Your task to perform on an android device: turn off improve location accuracy Image 0: 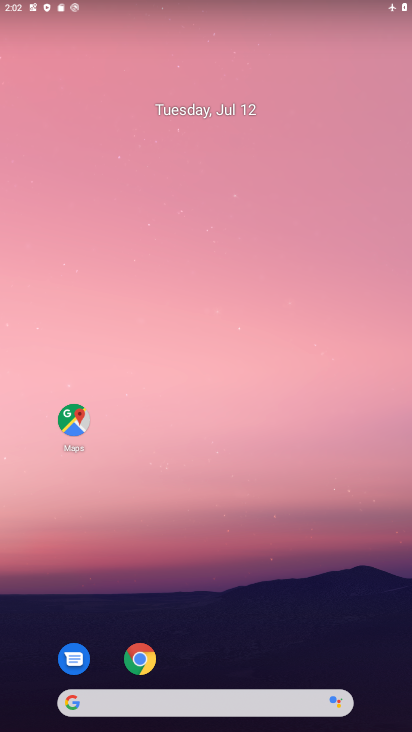
Step 0: drag from (174, 716) to (169, 294)
Your task to perform on an android device: turn off improve location accuracy Image 1: 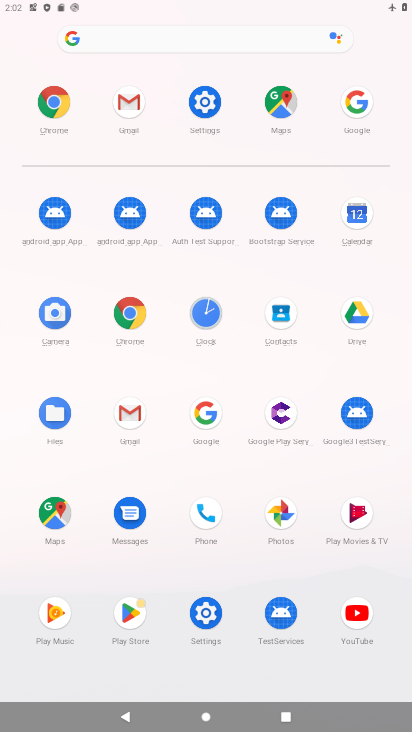
Step 1: click (200, 101)
Your task to perform on an android device: turn off improve location accuracy Image 2: 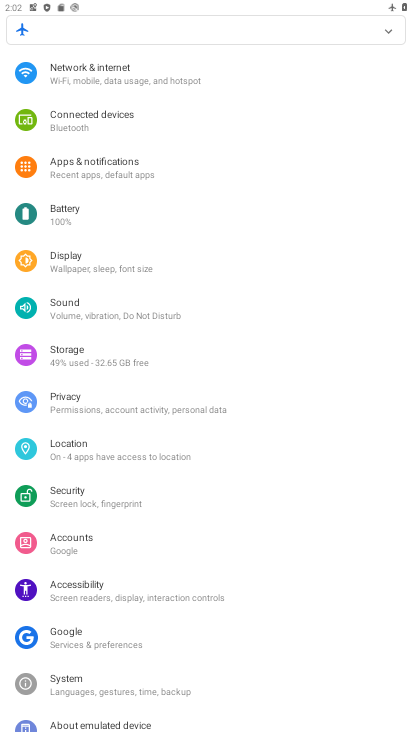
Step 2: click (70, 452)
Your task to perform on an android device: turn off improve location accuracy Image 3: 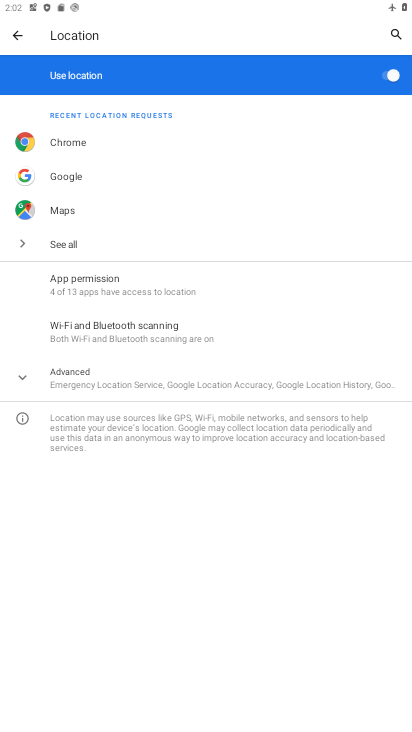
Step 3: click (91, 376)
Your task to perform on an android device: turn off improve location accuracy Image 4: 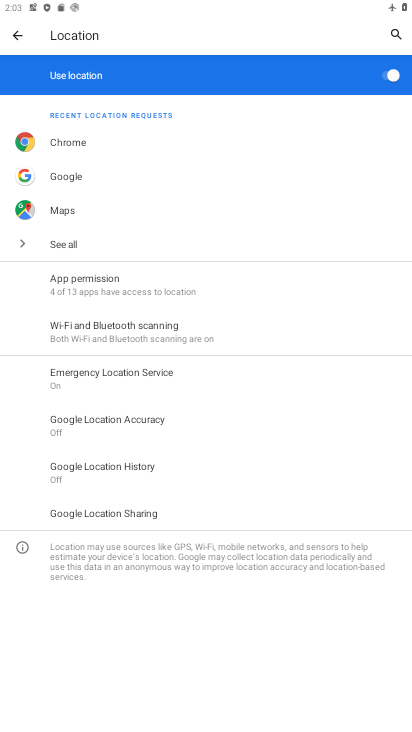
Step 4: click (115, 426)
Your task to perform on an android device: turn off improve location accuracy Image 5: 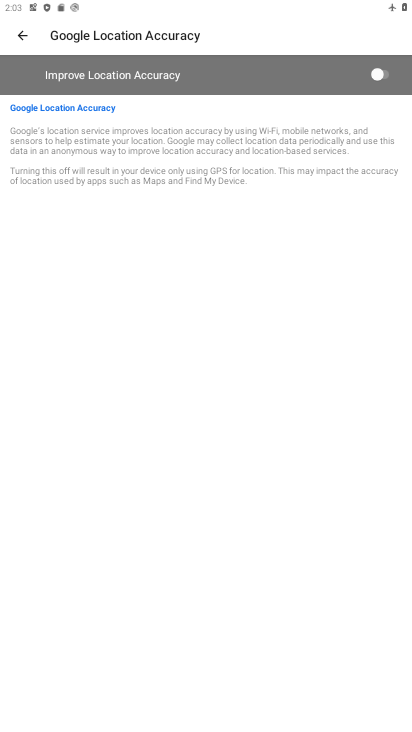
Step 5: task complete